Your task to perform on an android device: search for starred emails in the gmail app Image 0: 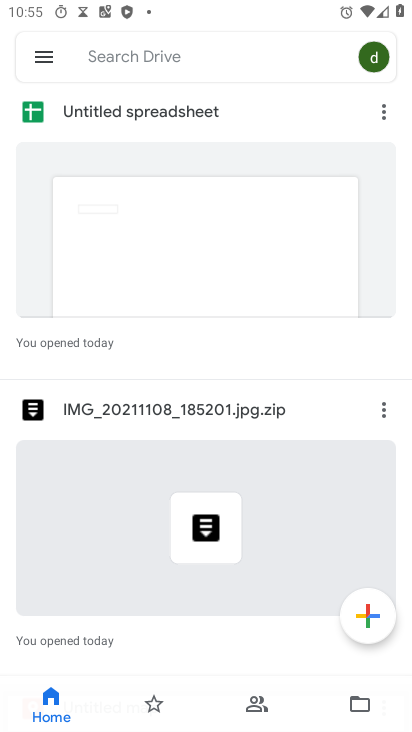
Step 0: press home button
Your task to perform on an android device: search for starred emails in the gmail app Image 1: 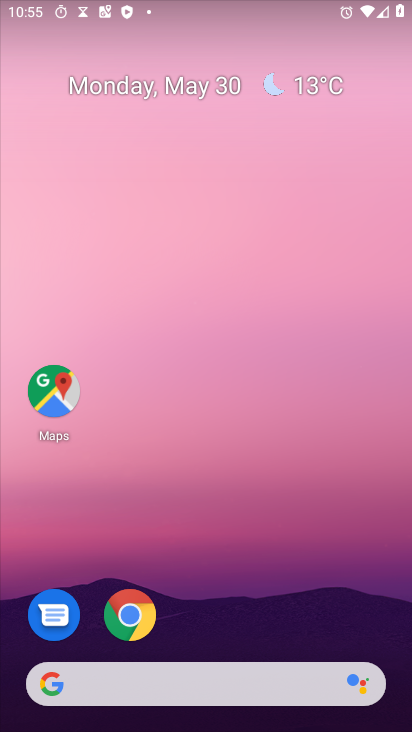
Step 1: drag from (264, 641) to (267, 117)
Your task to perform on an android device: search for starred emails in the gmail app Image 2: 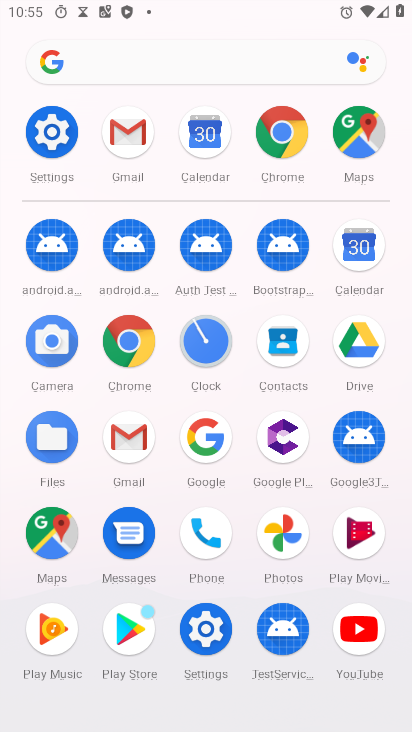
Step 2: click (126, 141)
Your task to perform on an android device: search for starred emails in the gmail app Image 3: 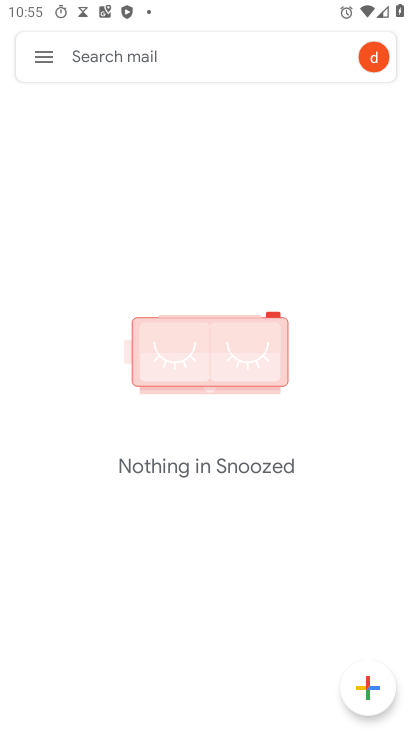
Step 3: click (42, 66)
Your task to perform on an android device: search for starred emails in the gmail app Image 4: 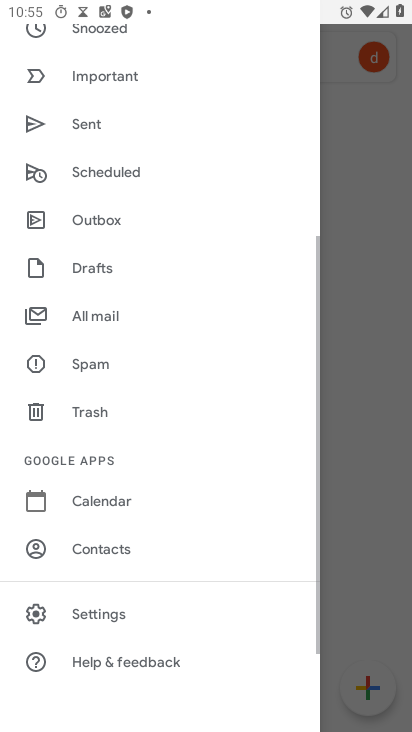
Step 4: drag from (70, 162) to (157, 584)
Your task to perform on an android device: search for starred emails in the gmail app Image 5: 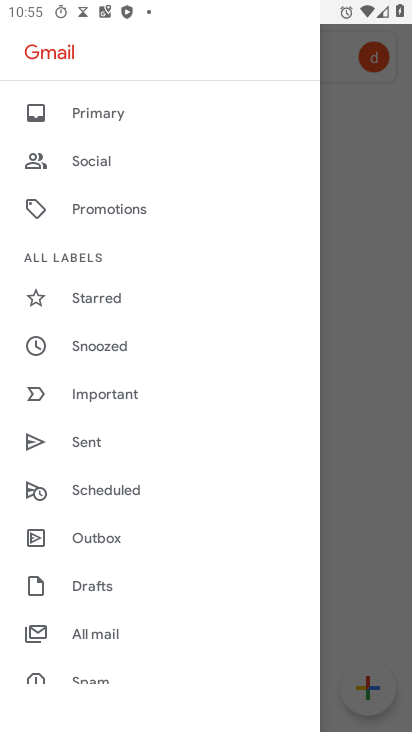
Step 5: click (83, 299)
Your task to perform on an android device: search for starred emails in the gmail app Image 6: 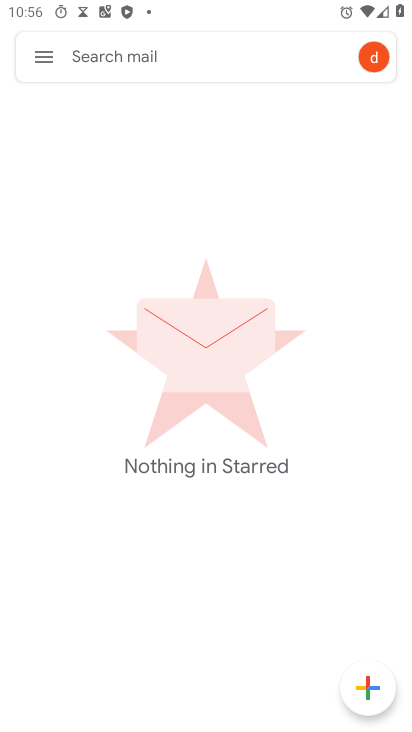
Step 6: task complete